Your task to perform on an android device: check out phone information Image 0: 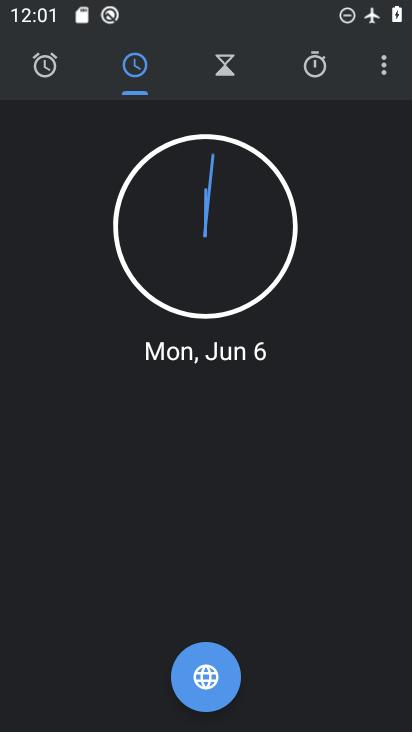
Step 0: press home button
Your task to perform on an android device: check out phone information Image 1: 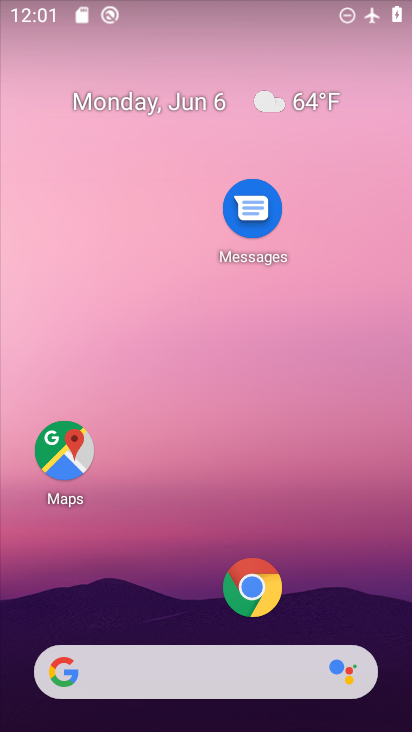
Step 1: drag from (159, 595) to (108, 226)
Your task to perform on an android device: check out phone information Image 2: 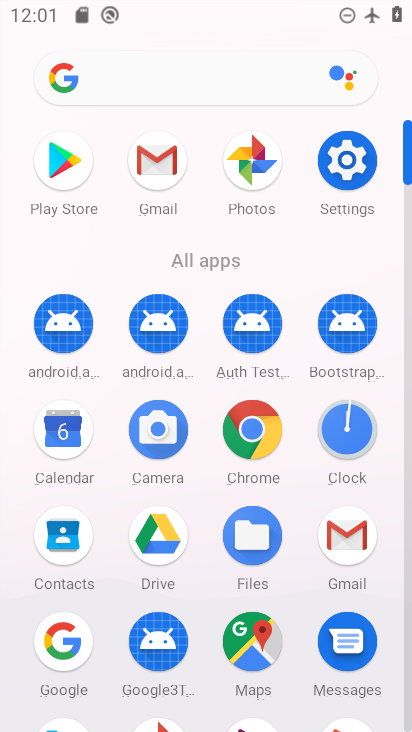
Step 2: click (340, 170)
Your task to perform on an android device: check out phone information Image 3: 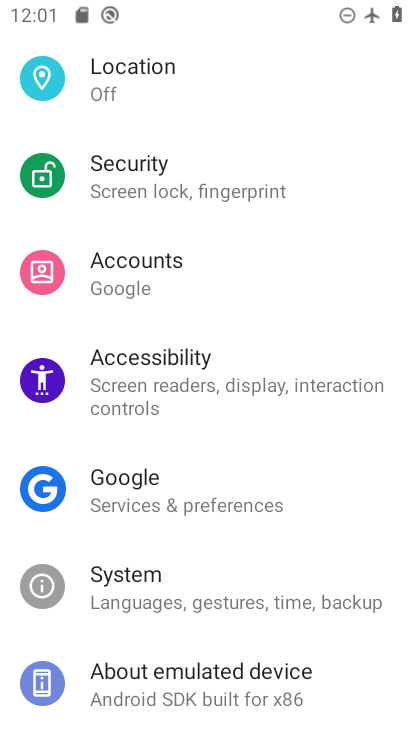
Step 3: task complete